Your task to perform on an android device: Open wifi settings Image 0: 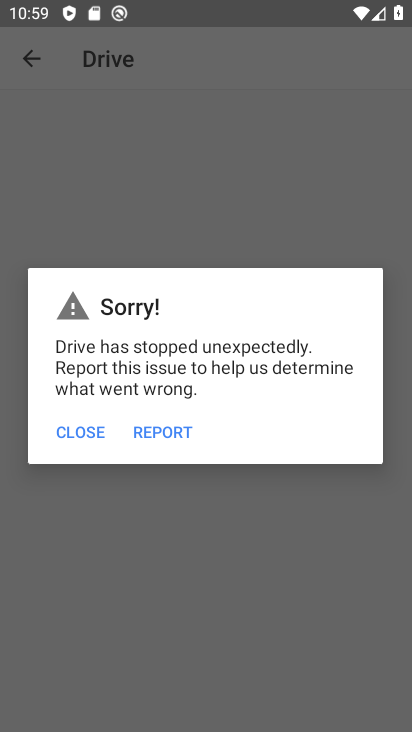
Step 0: press home button
Your task to perform on an android device: Open wifi settings Image 1: 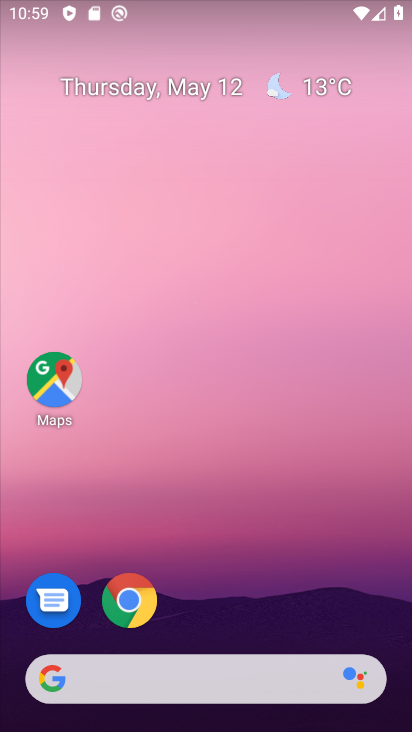
Step 1: drag from (394, 646) to (283, 66)
Your task to perform on an android device: Open wifi settings Image 2: 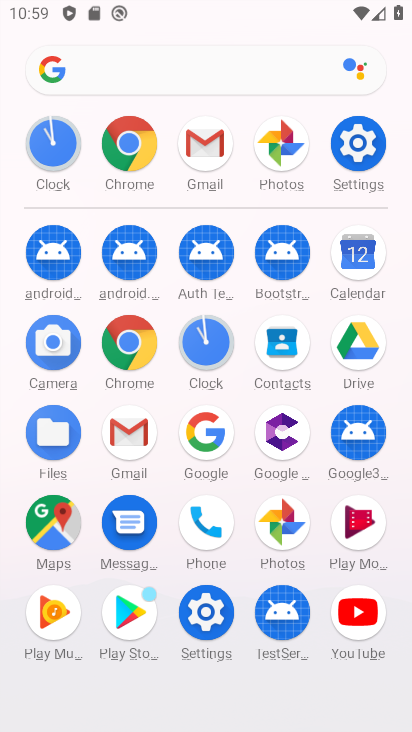
Step 2: click (209, 614)
Your task to perform on an android device: Open wifi settings Image 3: 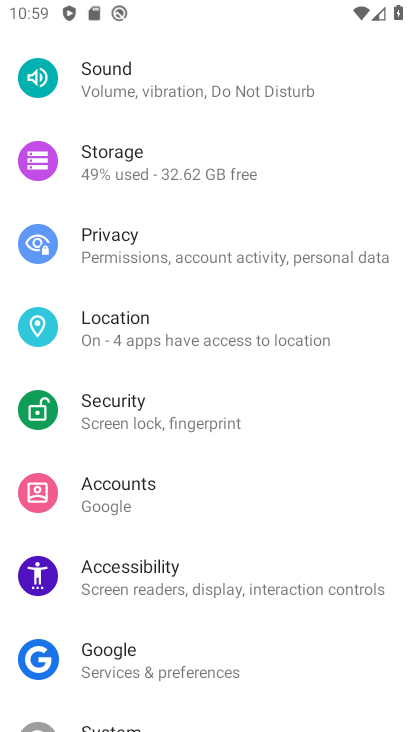
Step 3: drag from (335, 74) to (337, 441)
Your task to perform on an android device: Open wifi settings Image 4: 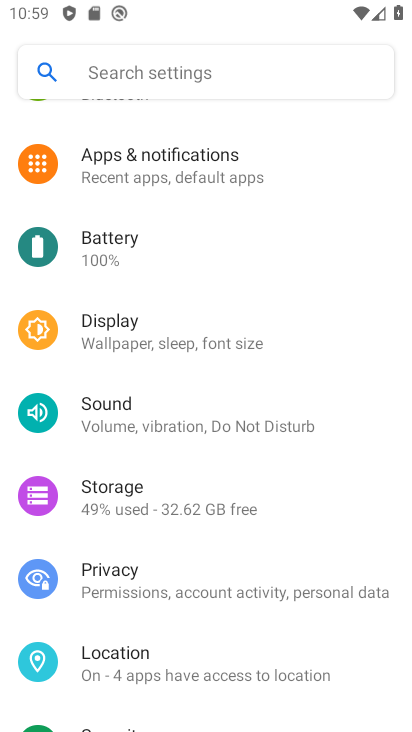
Step 4: drag from (309, 197) to (320, 518)
Your task to perform on an android device: Open wifi settings Image 5: 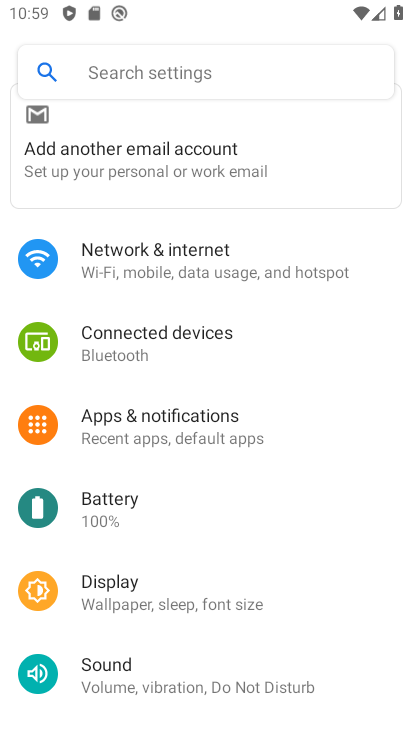
Step 5: click (141, 242)
Your task to perform on an android device: Open wifi settings Image 6: 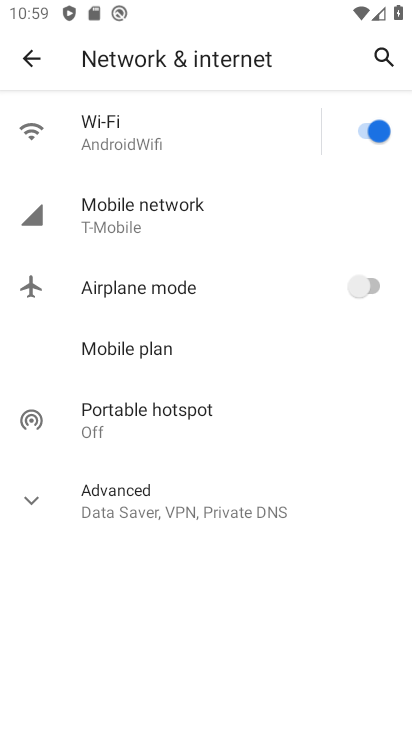
Step 6: click (104, 128)
Your task to perform on an android device: Open wifi settings Image 7: 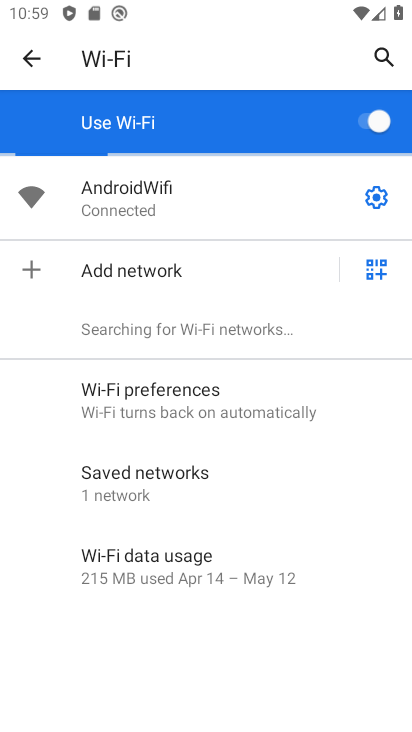
Step 7: click (367, 193)
Your task to perform on an android device: Open wifi settings Image 8: 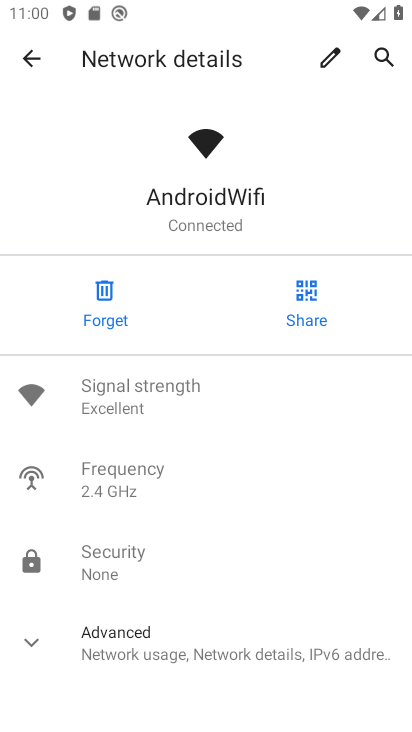
Step 8: task complete